Your task to perform on an android device: Clear the cart on costco.com. Image 0: 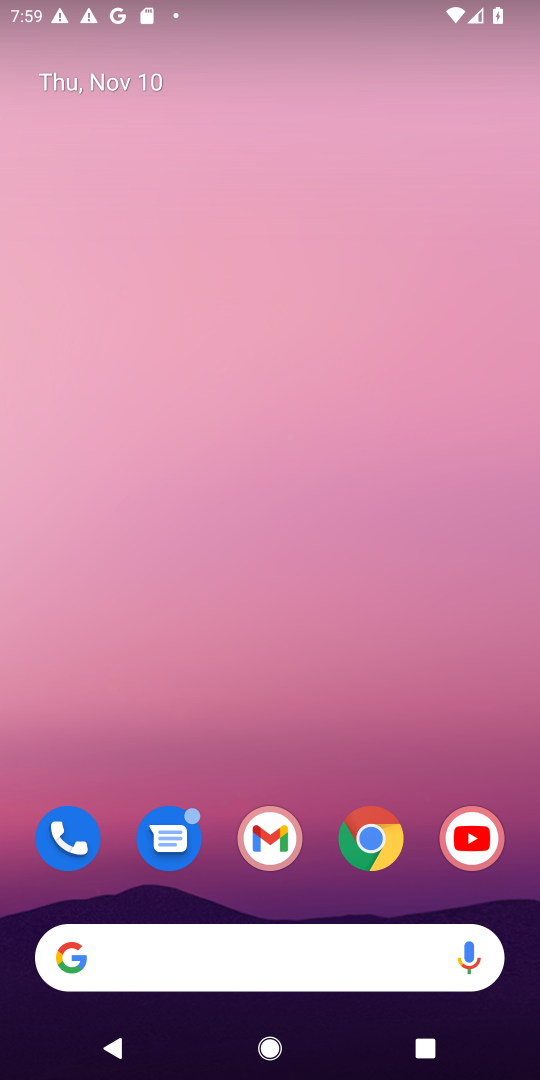
Step 0: drag from (249, 634) to (184, 99)
Your task to perform on an android device: Clear the cart on costco.com. Image 1: 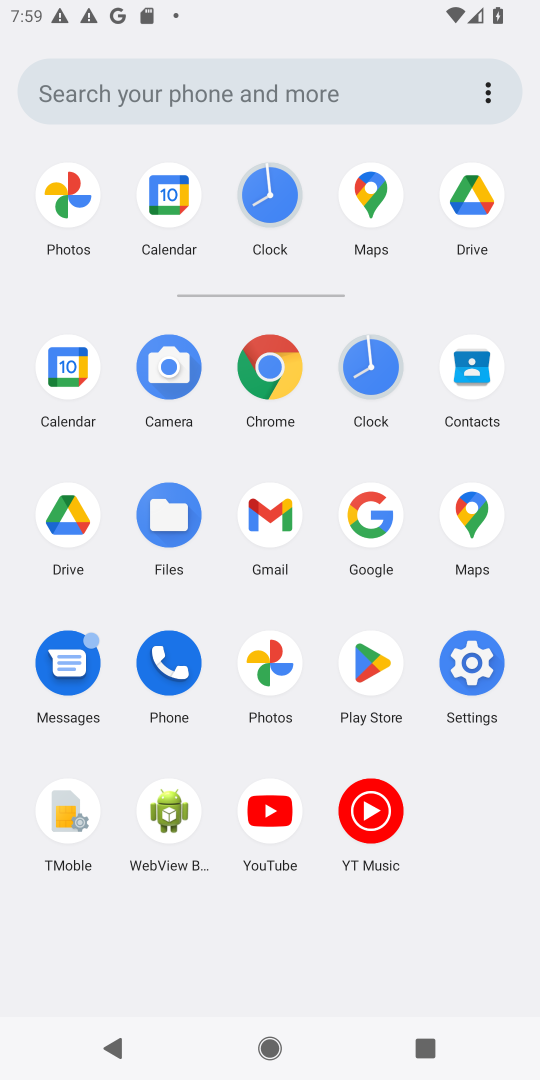
Step 1: click (269, 366)
Your task to perform on an android device: Clear the cart on costco.com. Image 2: 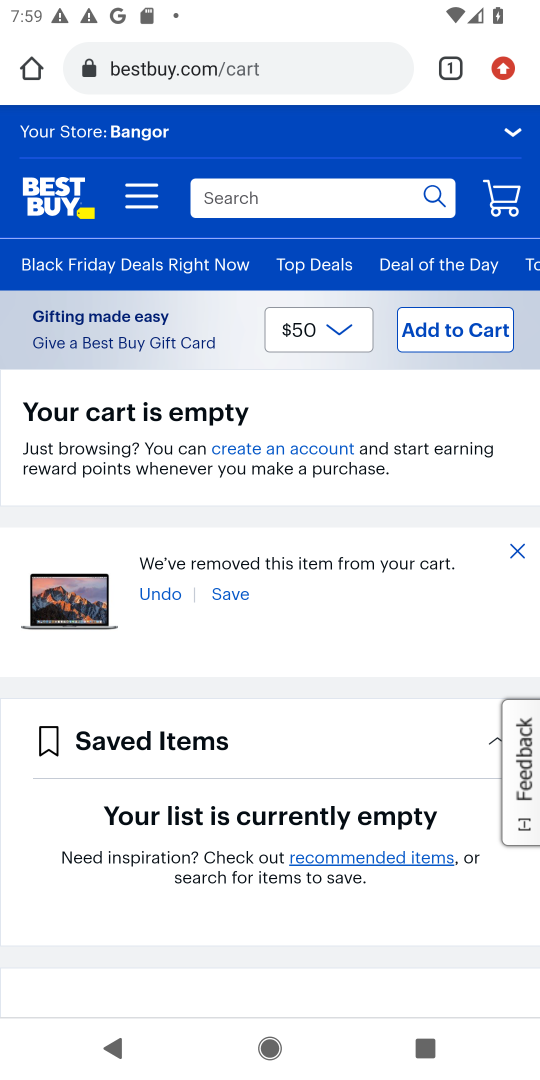
Step 2: click (247, 68)
Your task to perform on an android device: Clear the cart on costco.com. Image 3: 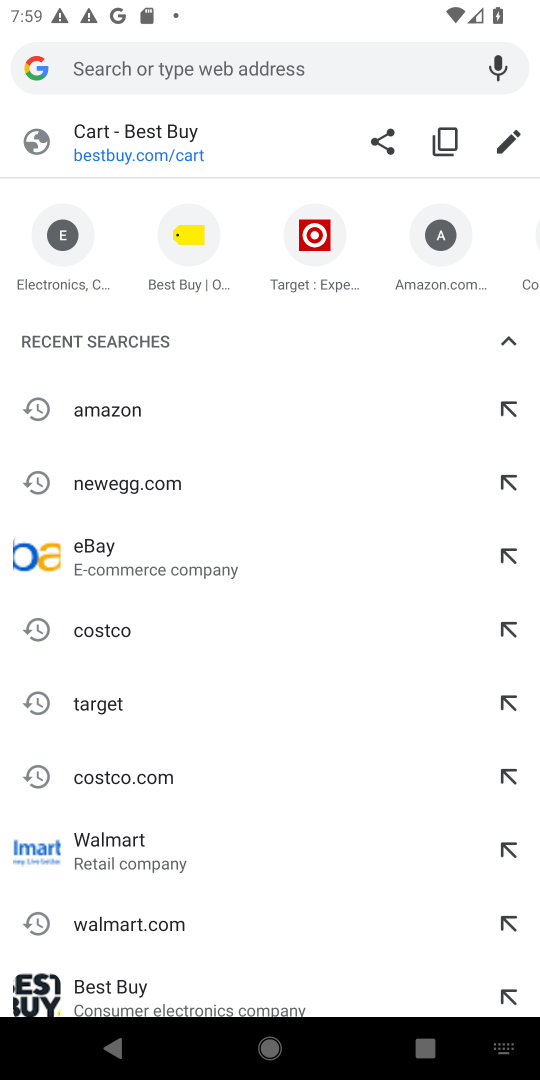
Step 3: type "costco.com"
Your task to perform on an android device: Clear the cart on costco.com. Image 4: 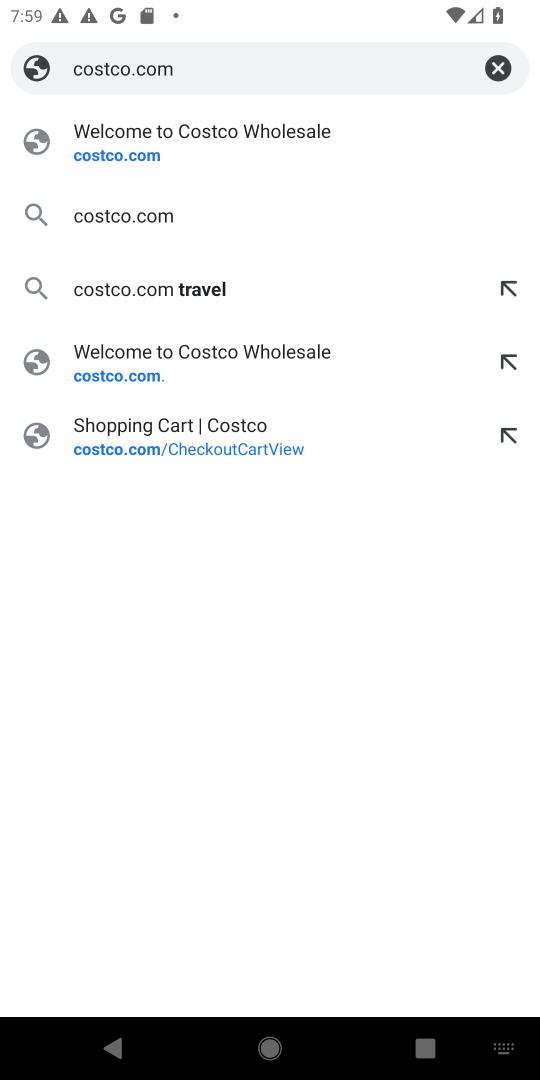
Step 4: press enter
Your task to perform on an android device: Clear the cart on costco.com. Image 5: 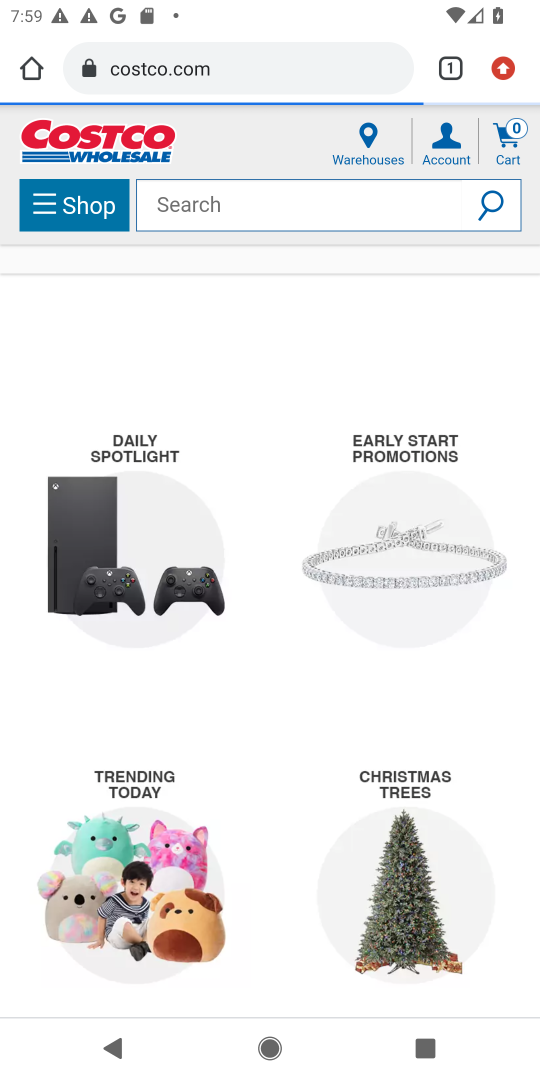
Step 5: click (526, 142)
Your task to perform on an android device: Clear the cart on costco.com. Image 6: 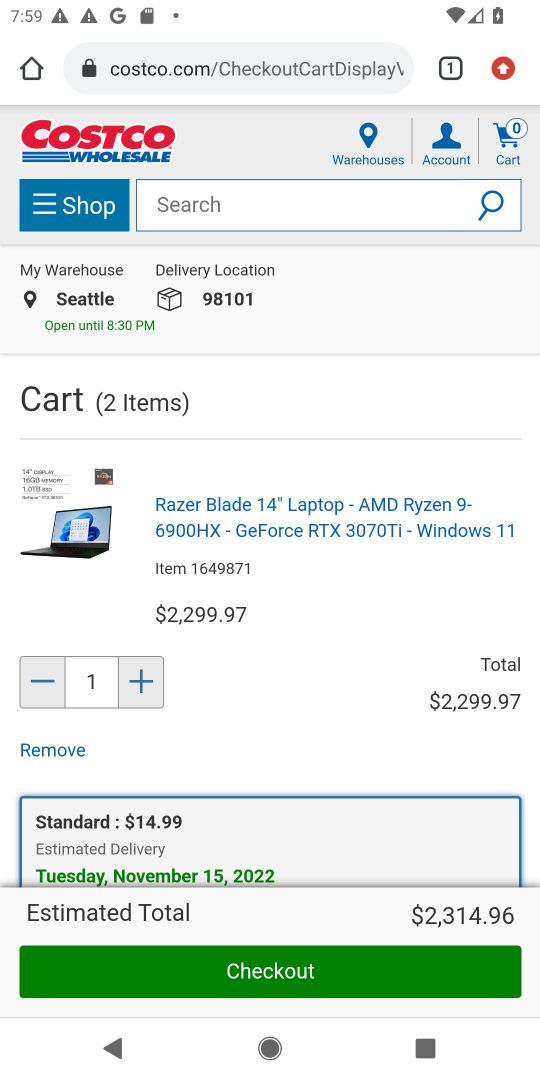
Step 6: click (36, 745)
Your task to perform on an android device: Clear the cart on costco.com. Image 7: 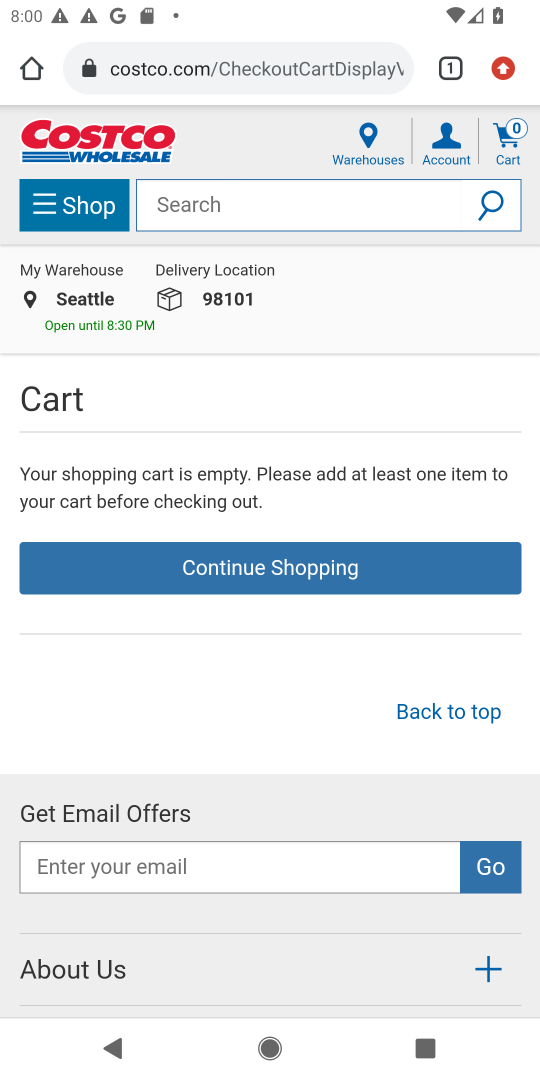
Step 7: task complete